Your task to perform on an android device: Go to privacy settings Image 0: 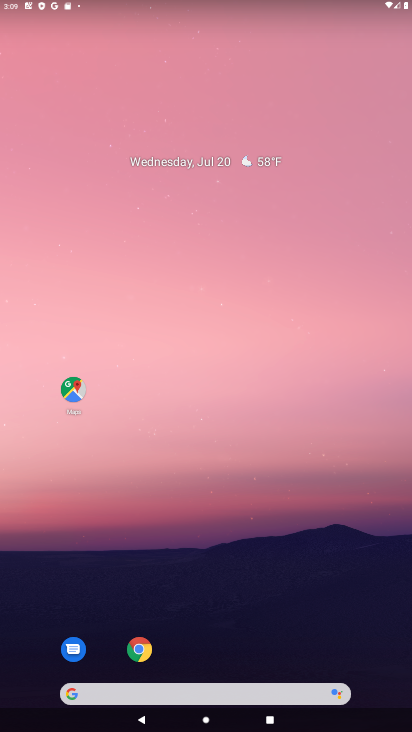
Step 0: drag from (220, 725) to (188, 127)
Your task to perform on an android device: Go to privacy settings Image 1: 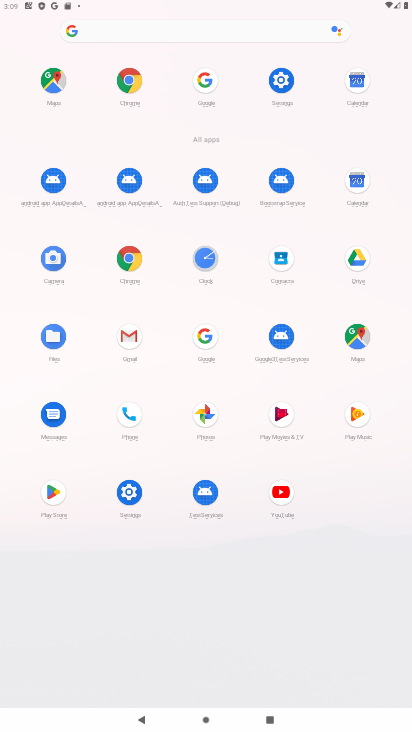
Step 1: click (283, 76)
Your task to perform on an android device: Go to privacy settings Image 2: 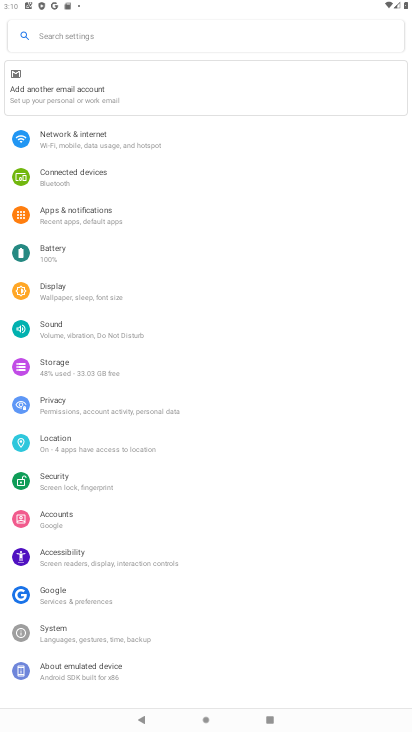
Step 2: click (57, 407)
Your task to perform on an android device: Go to privacy settings Image 3: 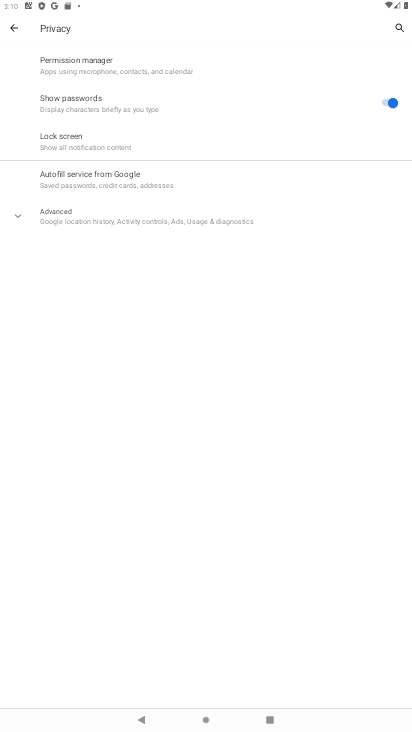
Step 3: task complete